Your task to perform on an android device: open app "NewsBreak: Local News & Alerts" (install if not already installed) Image 0: 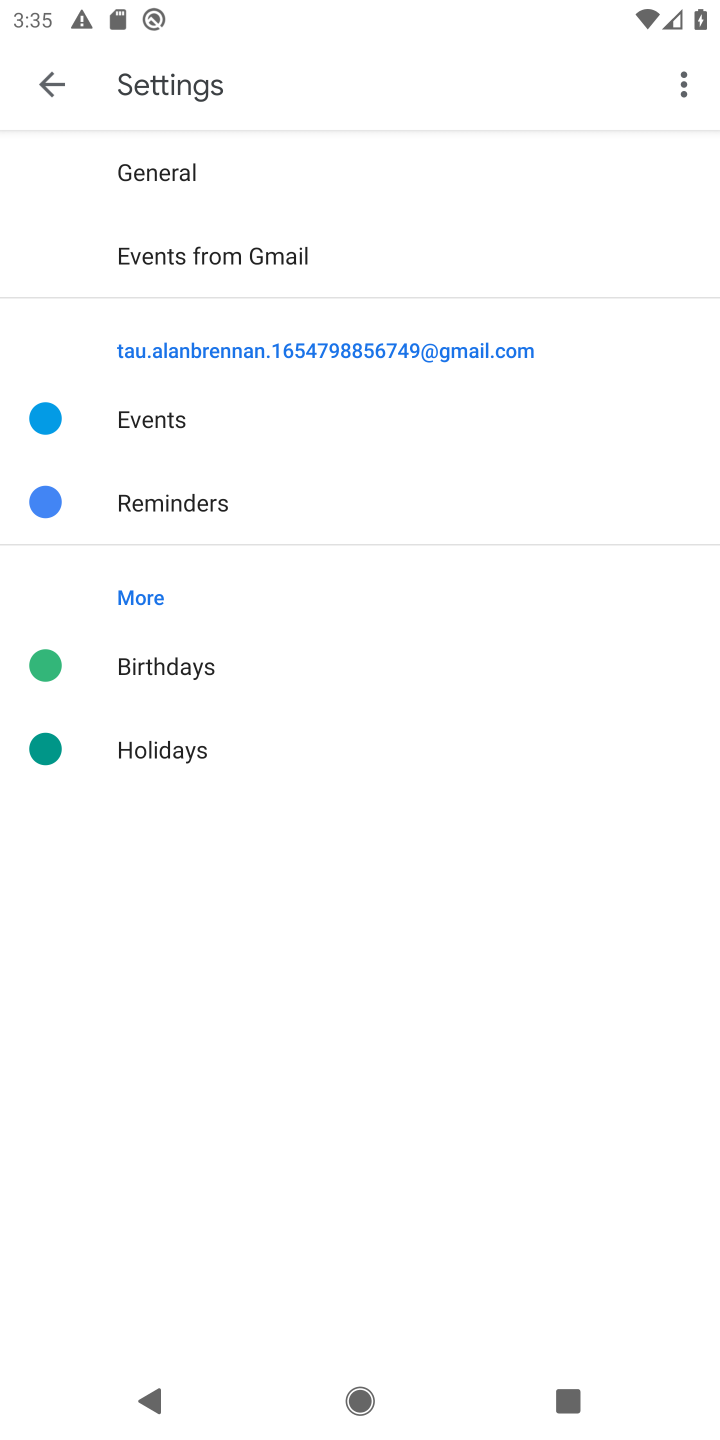
Step 0: press home button
Your task to perform on an android device: open app "NewsBreak: Local News & Alerts" (install if not already installed) Image 1: 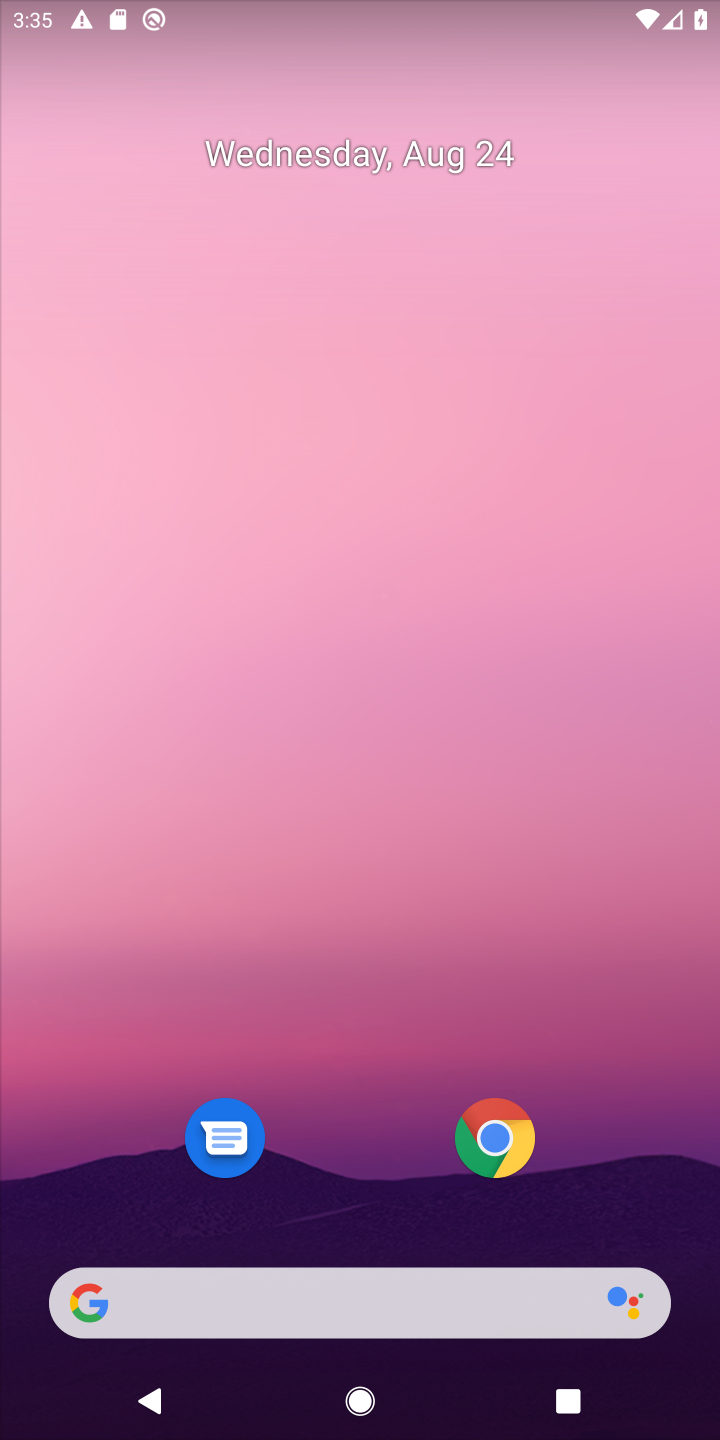
Step 1: drag from (357, 936) to (355, 232)
Your task to perform on an android device: open app "NewsBreak: Local News & Alerts" (install if not already installed) Image 2: 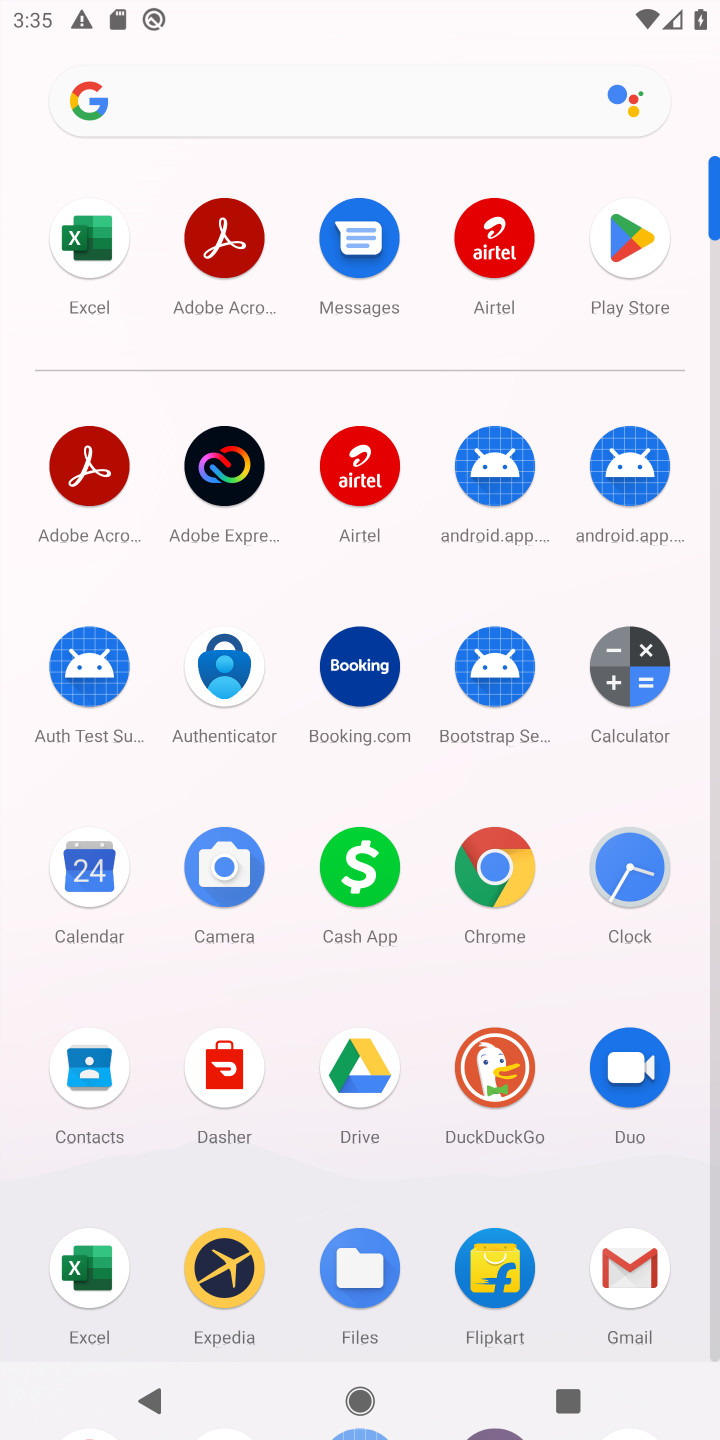
Step 2: click (633, 231)
Your task to perform on an android device: open app "NewsBreak: Local News & Alerts" (install if not already installed) Image 3: 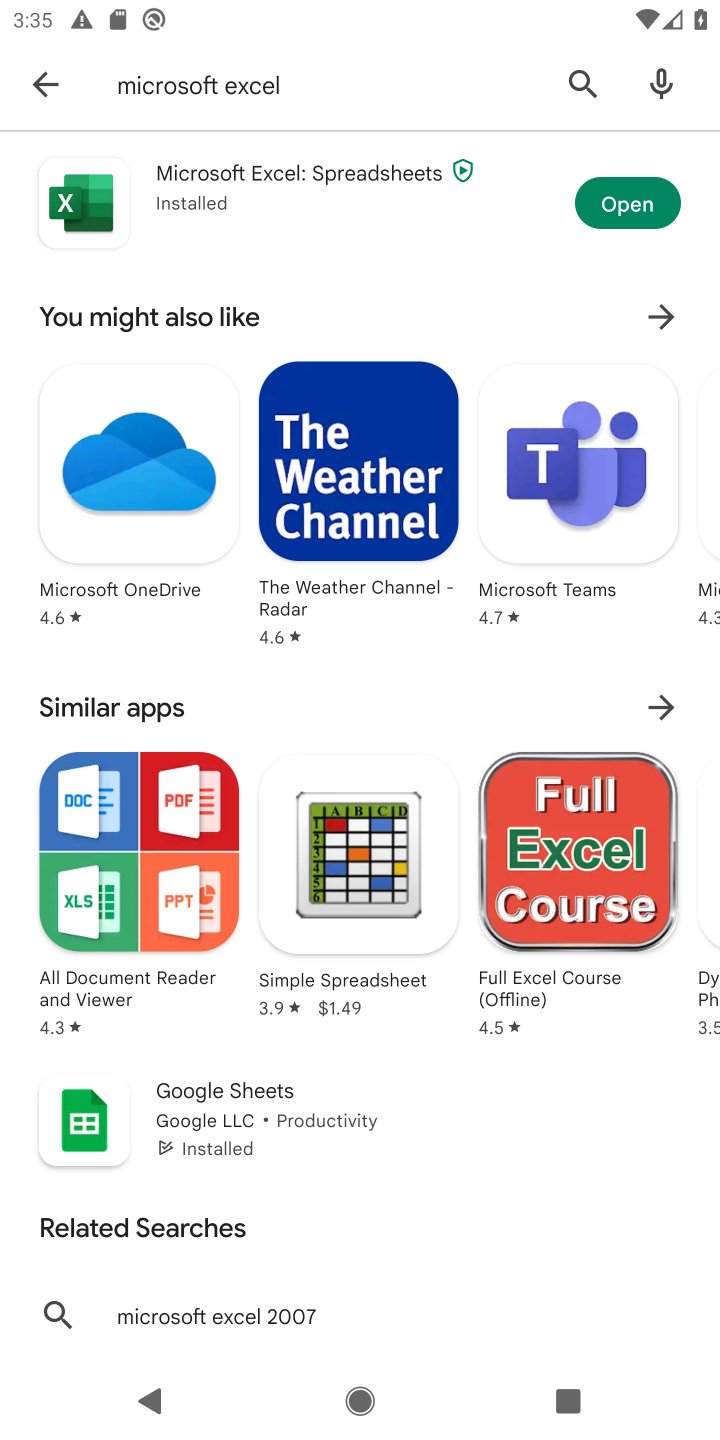
Step 3: click (579, 70)
Your task to perform on an android device: open app "NewsBreak: Local News & Alerts" (install if not already installed) Image 4: 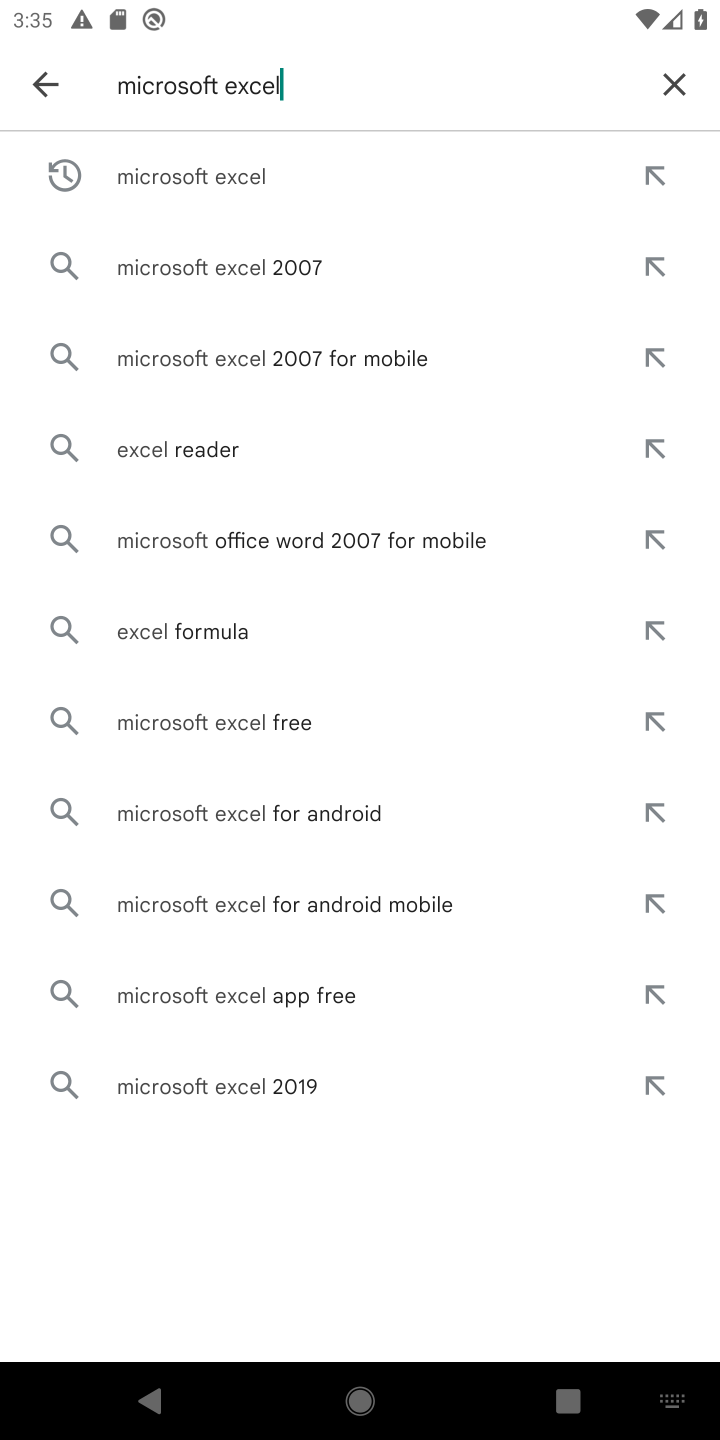
Step 4: click (672, 79)
Your task to perform on an android device: open app "NewsBreak: Local News & Alerts" (install if not already installed) Image 5: 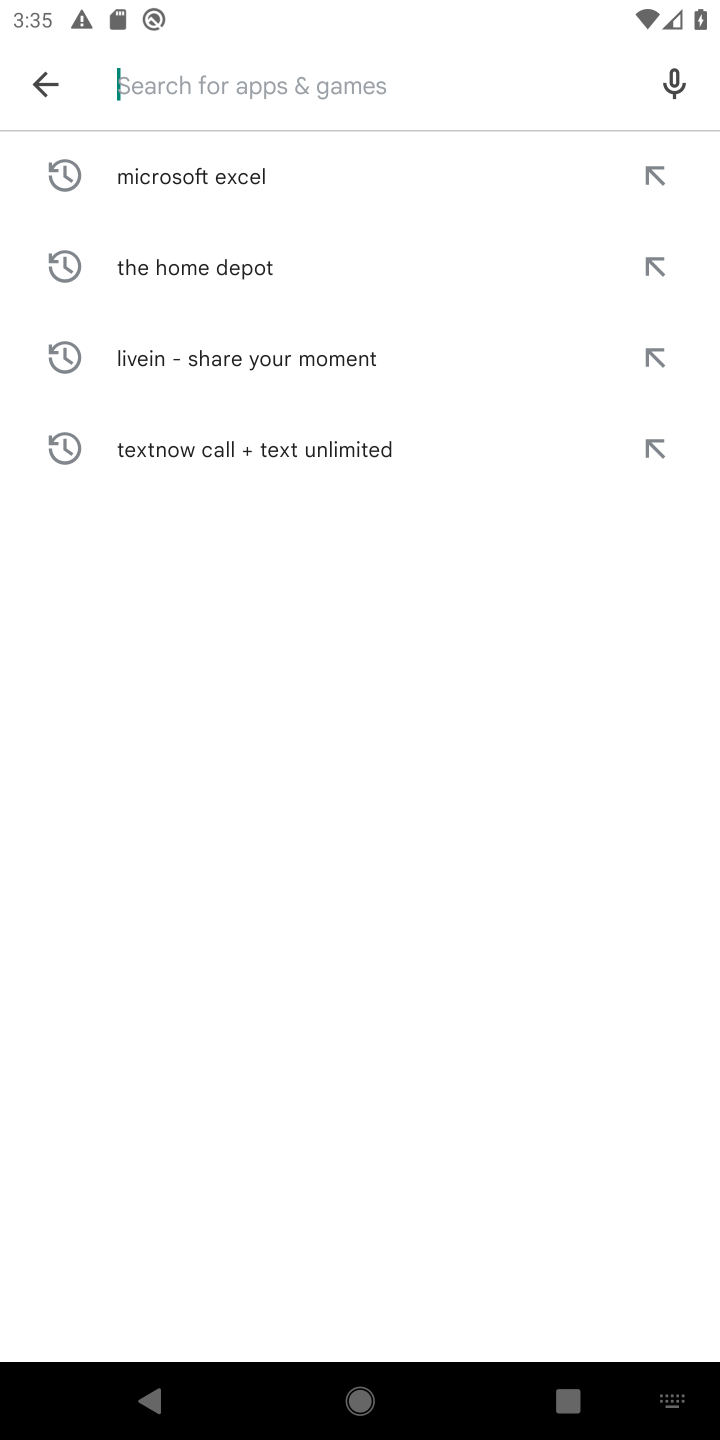
Step 5: type "NewsBreak: Local News & Alerts"
Your task to perform on an android device: open app "NewsBreak: Local News & Alerts" (install if not already installed) Image 6: 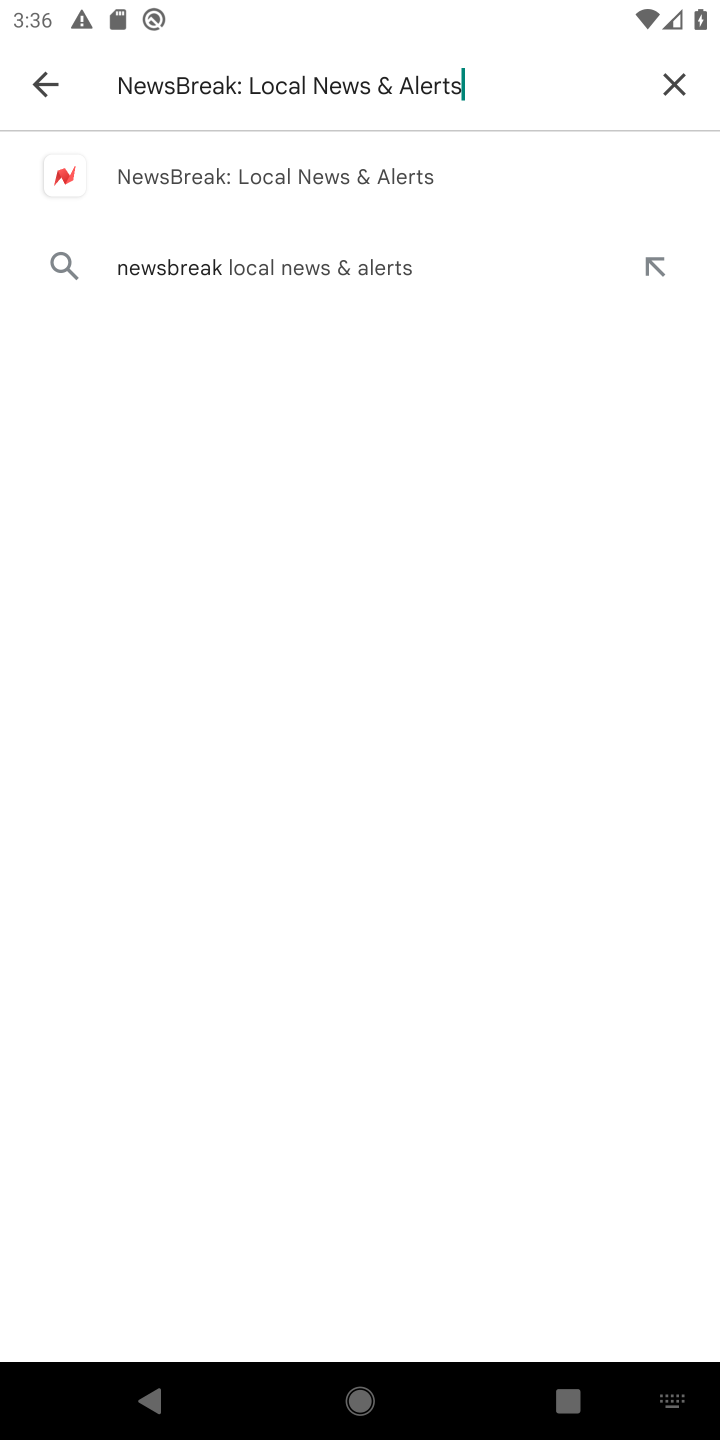
Step 6: click (366, 166)
Your task to perform on an android device: open app "NewsBreak: Local News & Alerts" (install if not already installed) Image 7: 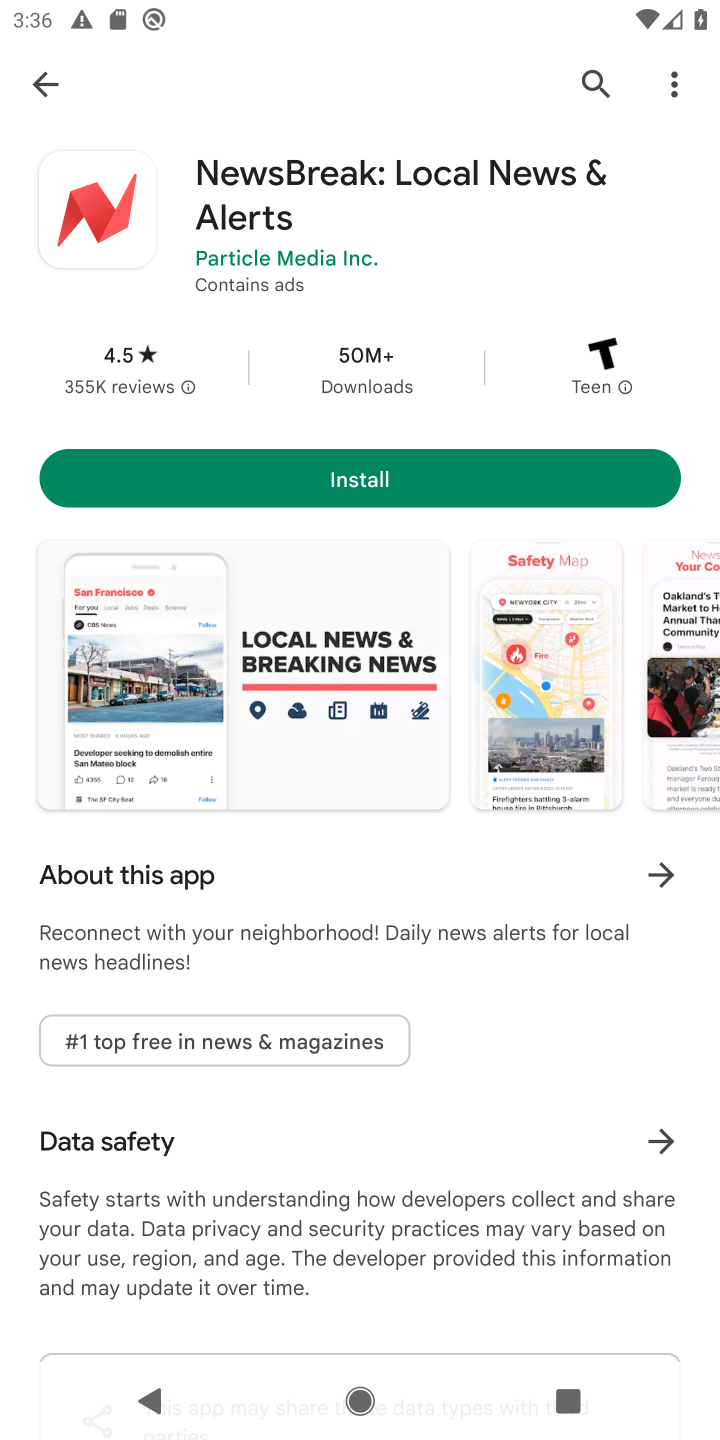
Step 7: click (364, 488)
Your task to perform on an android device: open app "NewsBreak: Local News & Alerts" (install if not already installed) Image 8: 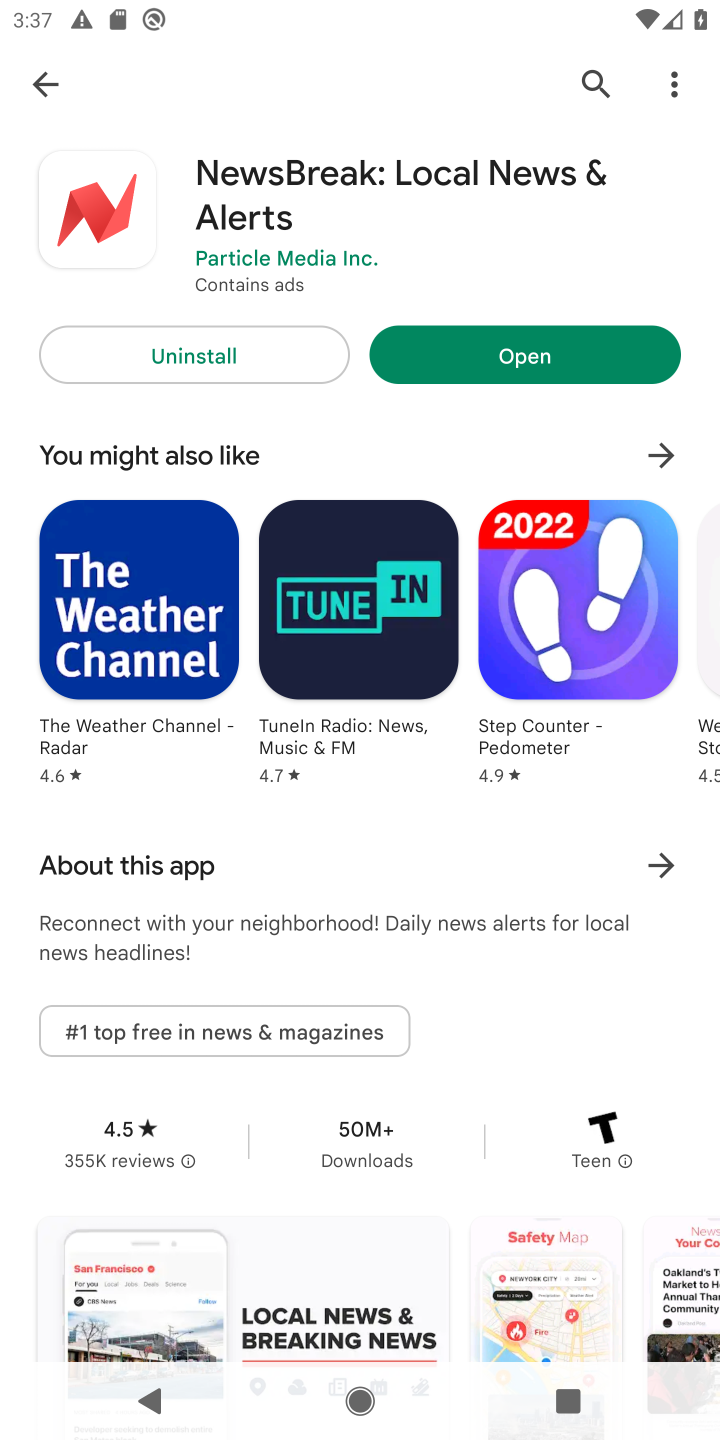
Step 8: click (540, 356)
Your task to perform on an android device: open app "NewsBreak: Local News & Alerts" (install if not already installed) Image 9: 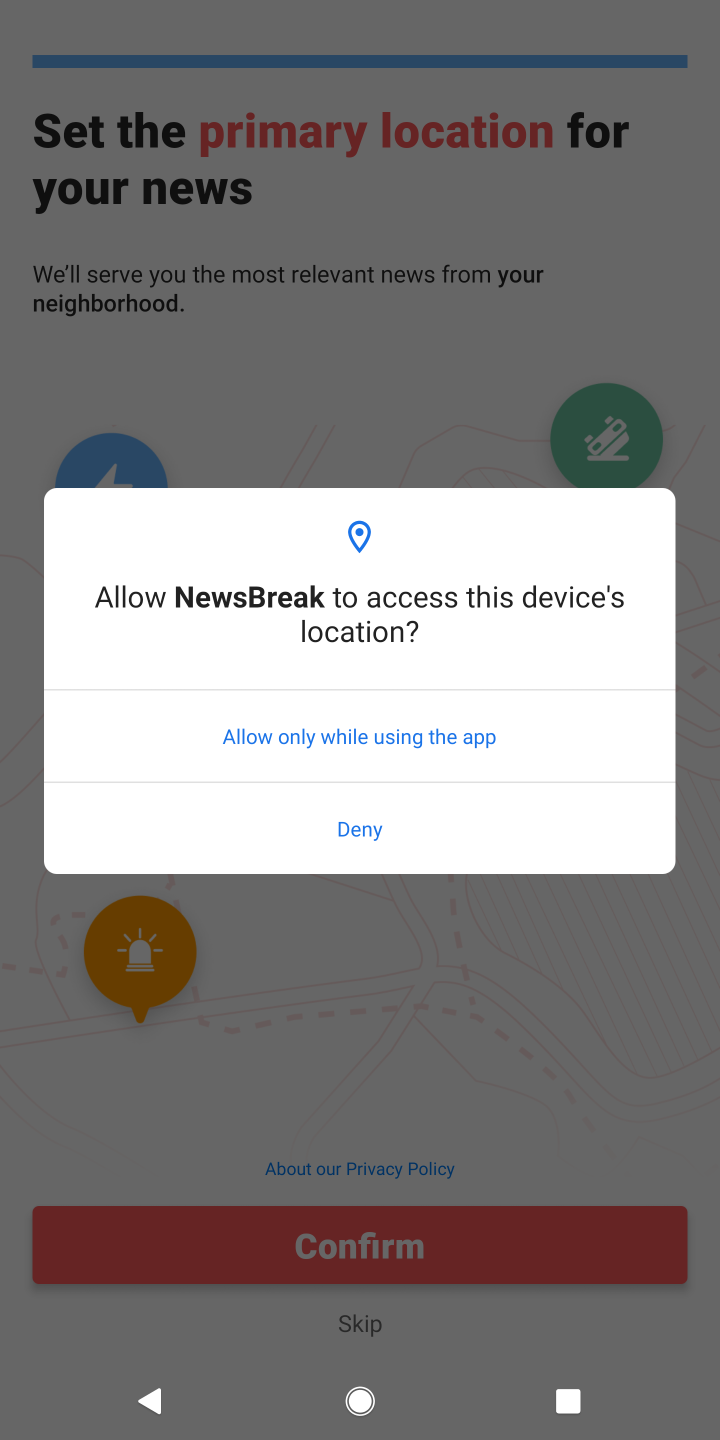
Step 9: task complete